Your task to perform on an android device: Go to Android settings Image 0: 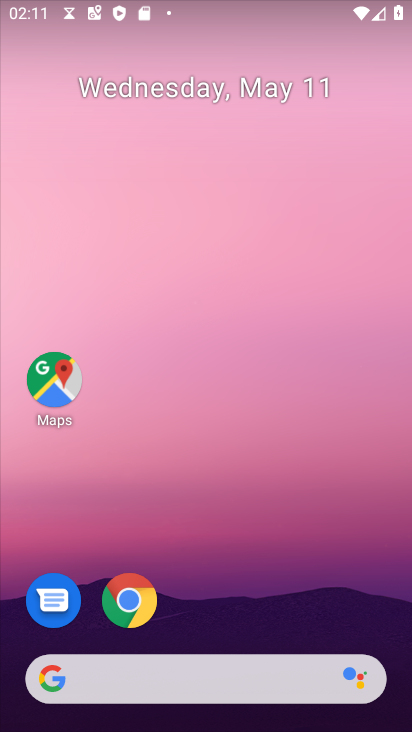
Step 0: drag from (276, 521) to (314, 105)
Your task to perform on an android device: Go to Android settings Image 1: 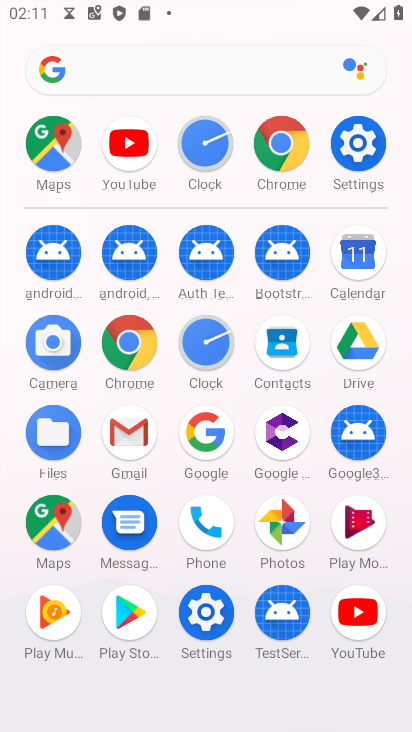
Step 1: click (350, 146)
Your task to perform on an android device: Go to Android settings Image 2: 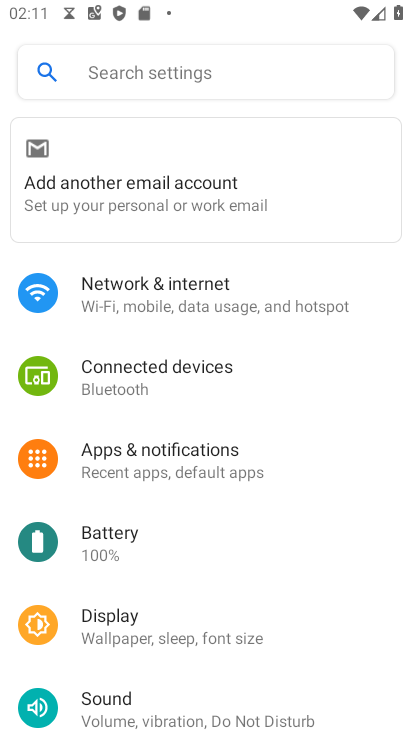
Step 2: task complete